Your task to perform on an android device: turn on airplane mode Image 0: 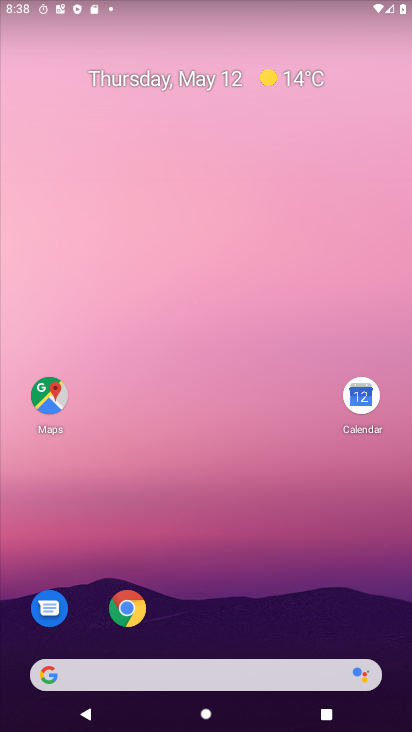
Step 0: drag from (244, 552) to (311, 70)
Your task to perform on an android device: turn on airplane mode Image 1: 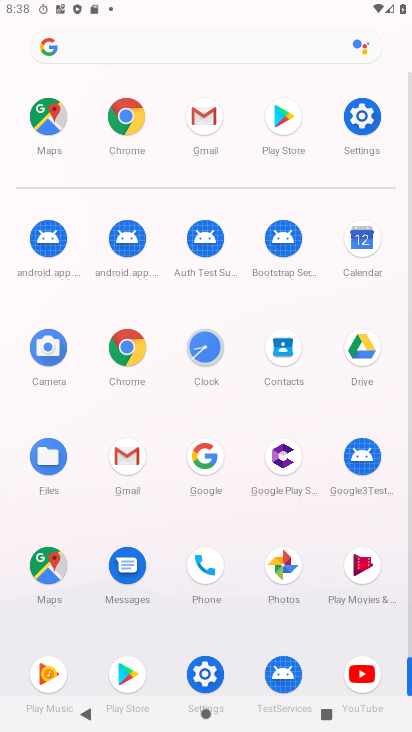
Step 1: click (368, 117)
Your task to perform on an android device: turn on airplane mode Image 2: 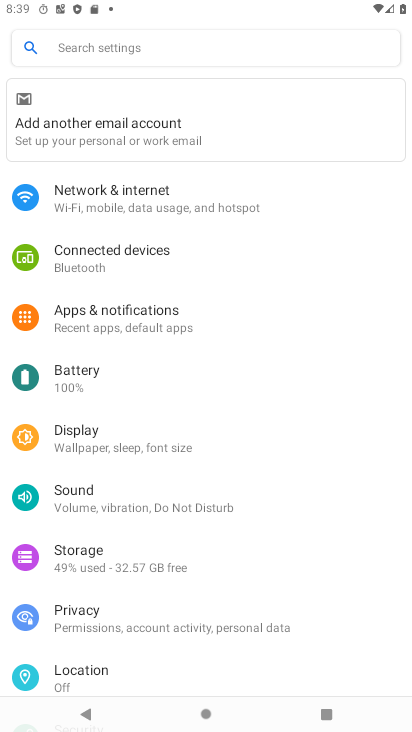
Step 2: click (128, 189)
Your task to perform on an android device: turn on airplane mode Image 3: 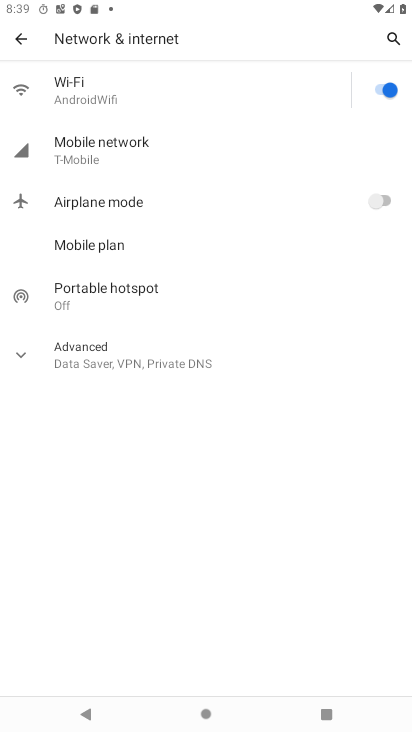
Step 3: click (395, 189)
Your task to perform on an android device: turn on airplane mode Image 4: 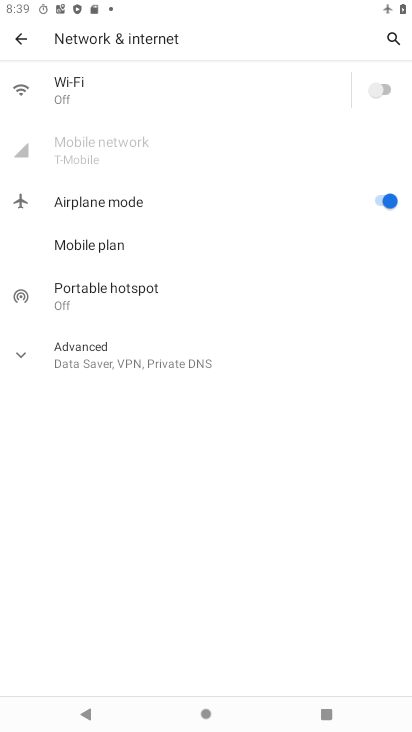
Step 4: task complete